Your task to perform on an android device: Open Google Chrome and click the shortcut for Amazon.com Image 0: 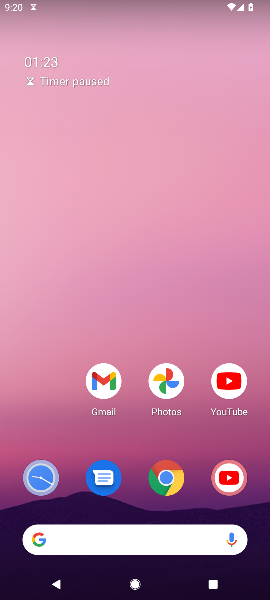
Step 0: click (170, 483)
Your task to perform on an android device: Open Google Chrome and click the shortcut for Amazon.com Image 1: 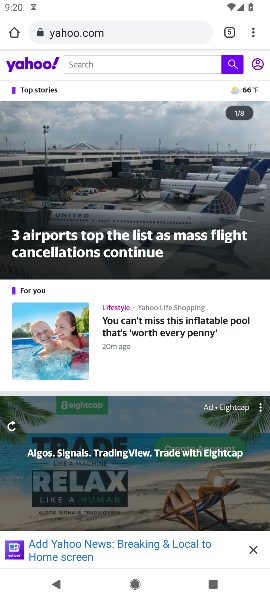
Step 1: drag from (255, 31) to (170, 111)
Your task to perform on an android device: Open Google Chrome and click the shortcut for Amazon.com Image 2: 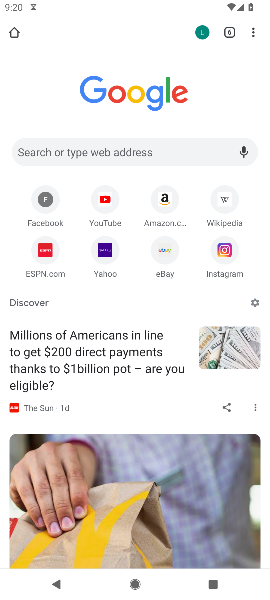
Step 2: click (164, 196)
Your task to perform on an android device: Open Google Chrome and click the shortcut for Amazon.com Image 3: 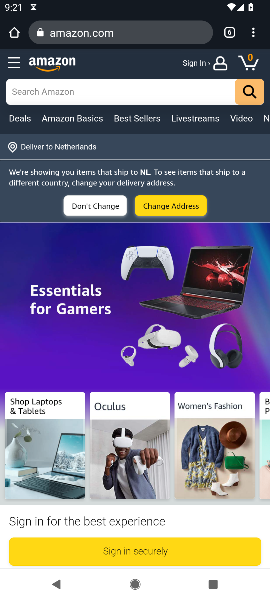
Step 3: task complete